Your task to perform on an android device: Open the calendar and show me this week's events? Image 0: 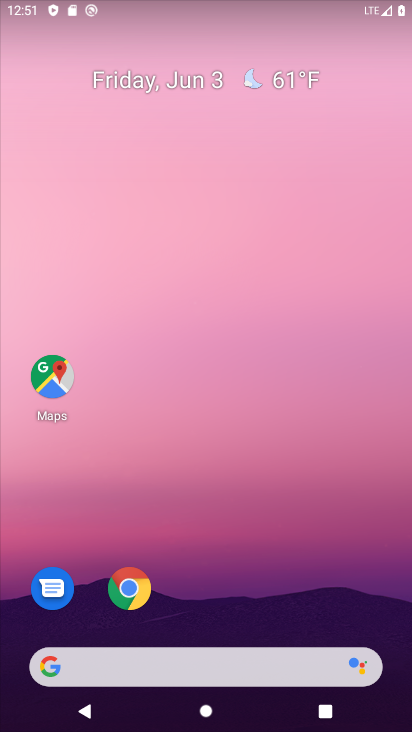
Step 0: drag from (38, 527) to (313, 127)
Your task to perform on an android device: Open the calendar and show me this week's events? Image 1: 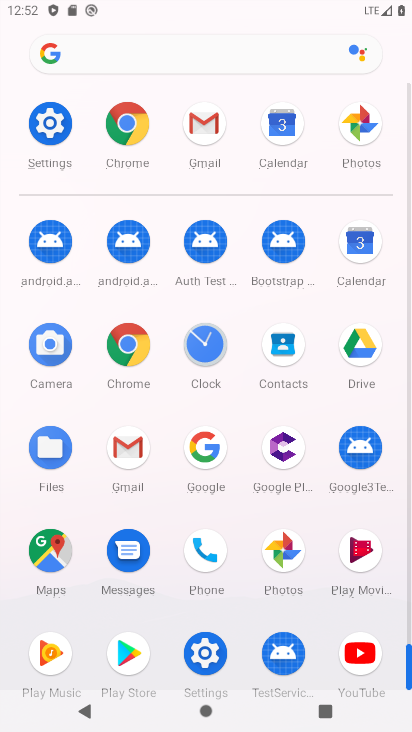
Step 1: click (283, 127)
Your task to perform on an android device: Open the calendar and show me this week's events? Image 2: 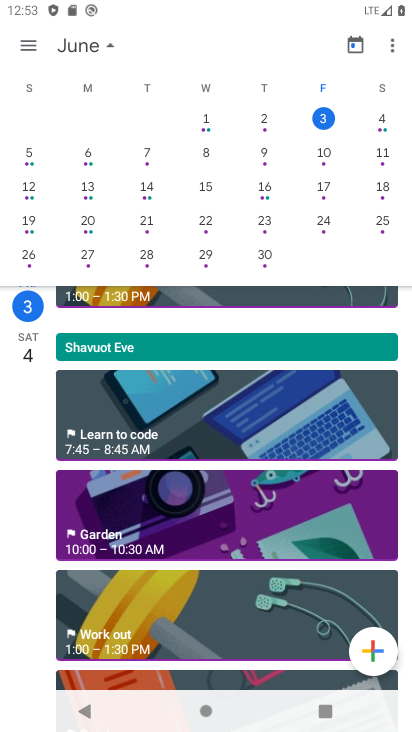
Step 2: click (198, 188)
Your task to perform on an android device: Open the calendar and show me this week's events? Image 3: 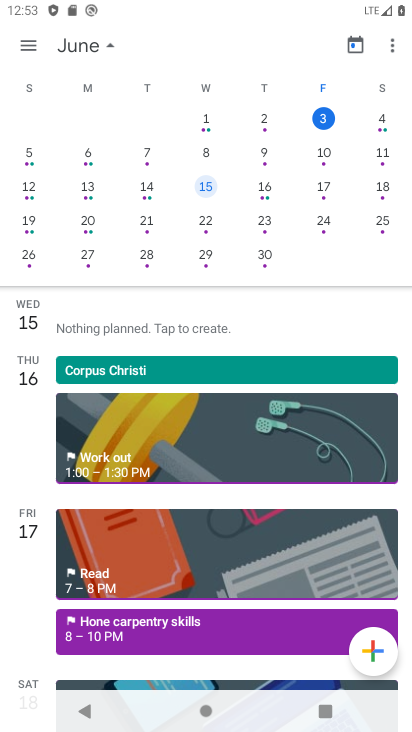
Step 3: click (149, 189)
Your task to perform on an android device: Open the calendar and show me this week's events? Image 4: 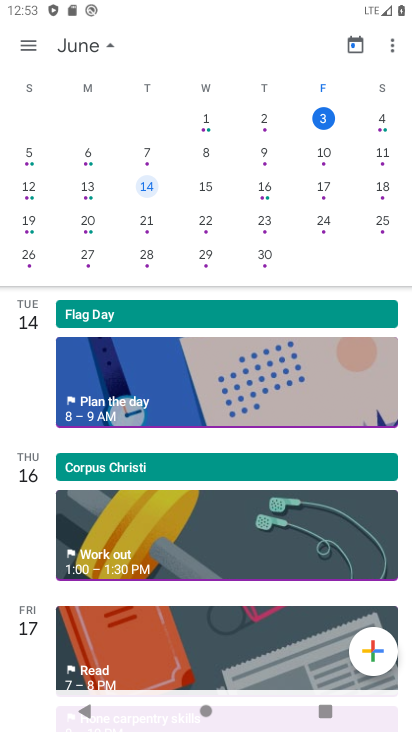
Step 4: click (246, 184)
Your task to perform on an android device: Open the calendar and show me this week's events? Image 5: 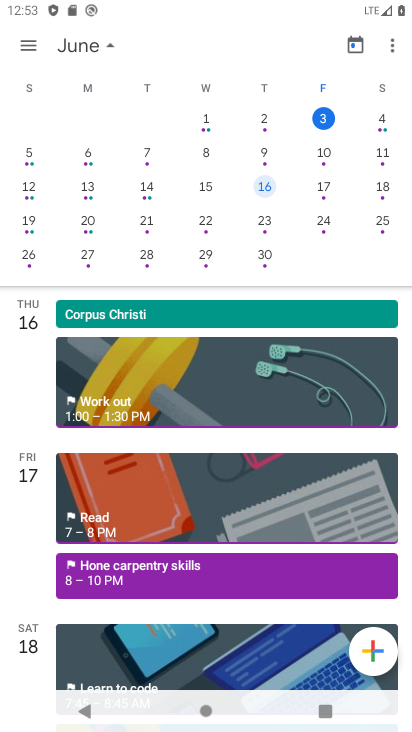
Step 5: task complete